Your task to perform on an android device: Open Google Chrome and click the shortcut for Amazon.com Image 0: 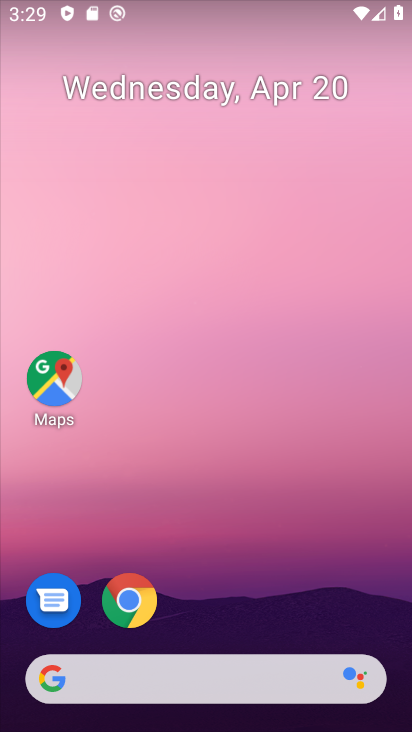
Step 0: click (143, 603)
Your task to perform on an android device: Open Google Chrome and click the shortcut for Amazon.com Image 1: 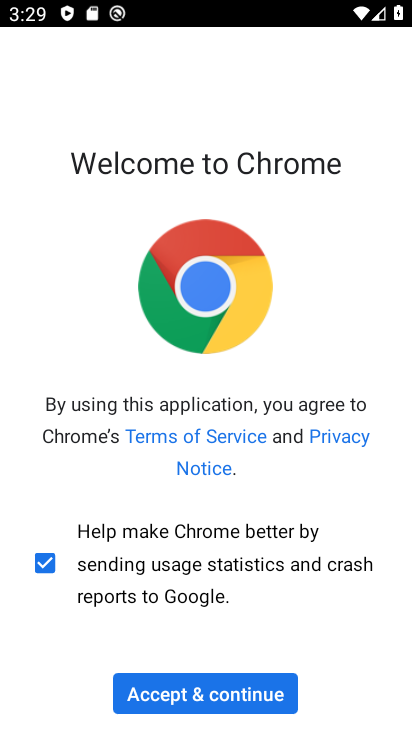
Step 1: click (208, 687)
Your task to perform on an android device: Open Google Chrome and click the shortcut for Amazon.com Image 2: 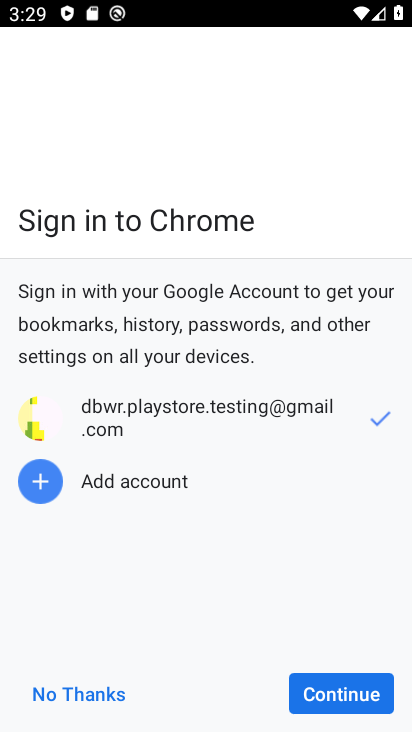
Step 2: click (344, 688)
Your task to perform on an android device: Open Google Chrome and click the shortcut for Amazon.com Image 3: 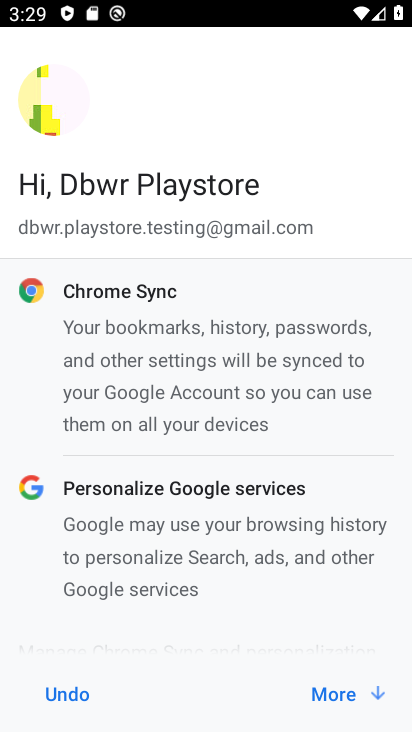
Step 3: click (343, 690)
Your task to perform on an android device: Open Google Chrome and click the shortcut for Amazon.com Image 4: 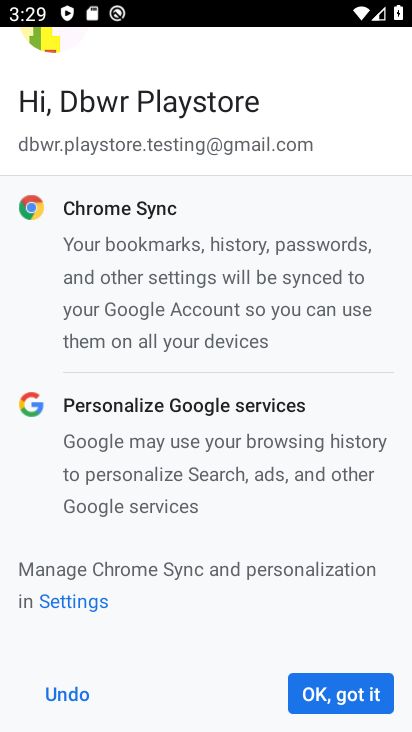
Step 4: click (342, 689)
Your task to perform on an android device: Open Google Chrome and click the shortcut for Amazon.com Image 5: 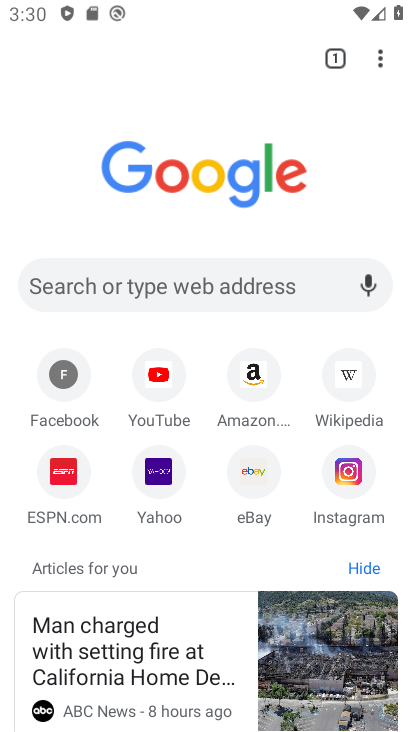
Step 5: click (242, 376)
Your task to perform on an android device: Open Google Chrome and click the shortcut for Amazon.com Image 6: 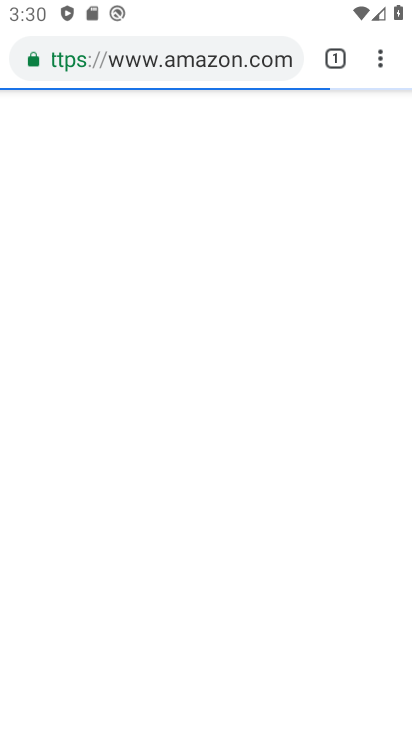
Step 6: task complete